Your task to perform on an android device: check the backup settings in the google photos Image 0: 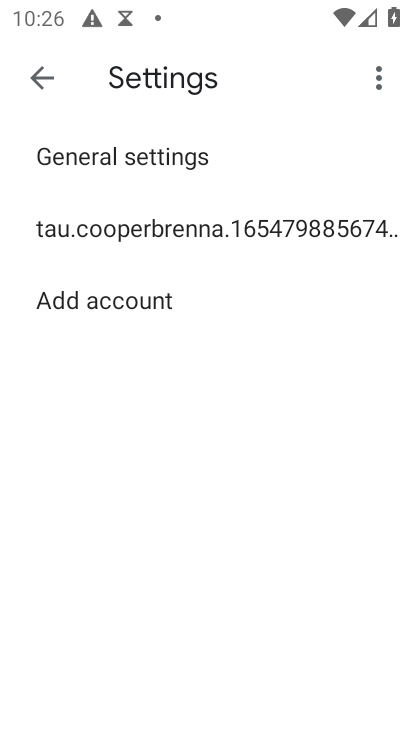
Step 0: press home button
Your task to perform on an android device: check the backup settings in the google photos Image 1: 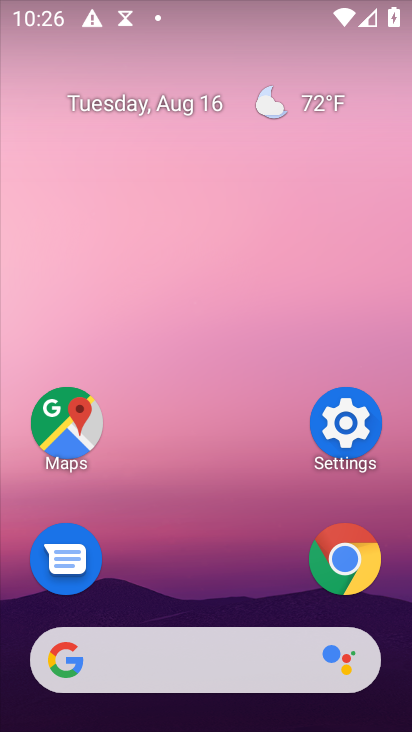
Step 1: drag from (202, 609) to (340, 77)
Your task to perform on an android device: check the backup settings in the google photos Image 2: 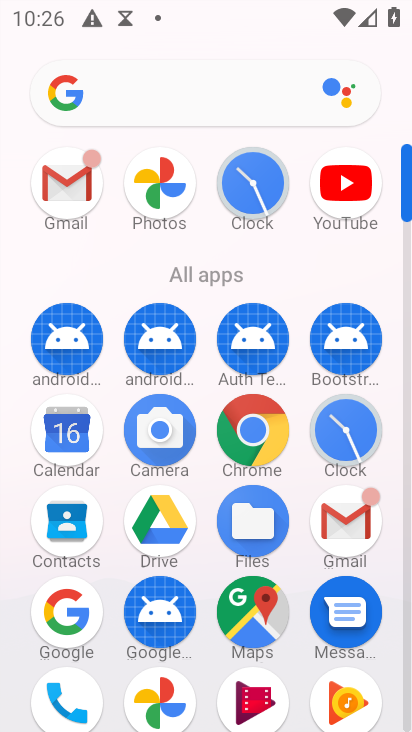
Step 2: click (160, 189)
Your task to perform on an android device: check the backup settings in the google photos Image 3: 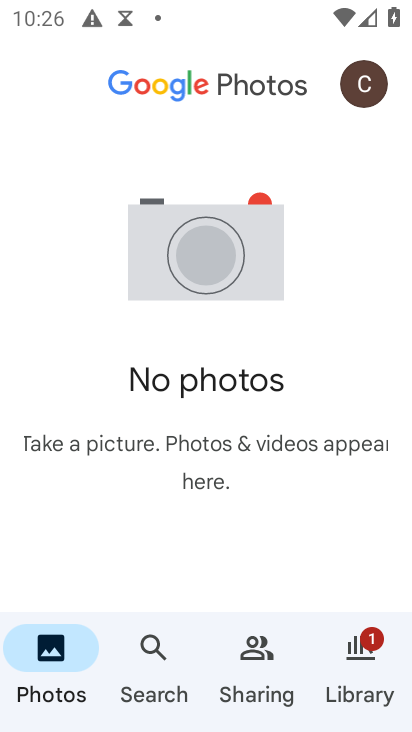
Step 3: click (359, 81)
Your task to perform on an android device: check the backup settings in the google photos Image 4: 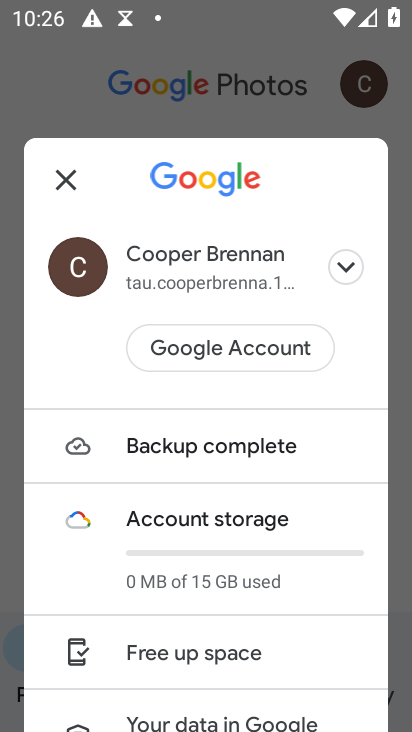
Step 4: drag from (208, 611) to (253, 116)
Your task to perform on an android device: check the backup settings in the google photos Image 5: 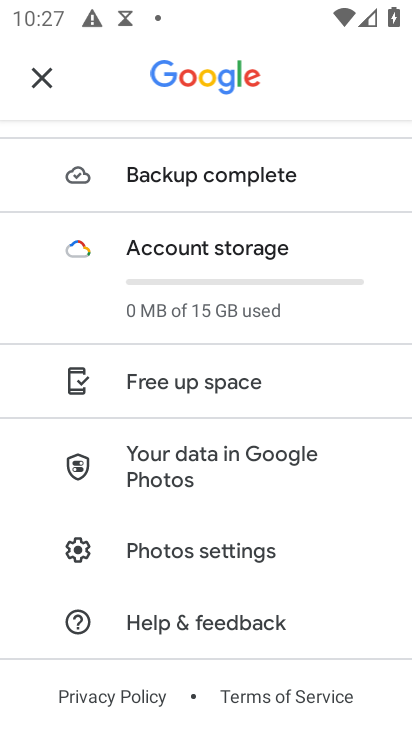
Step 5: click (205, 550)
Your task to perform on an android device: check the backup settings in the google photos Image 6: 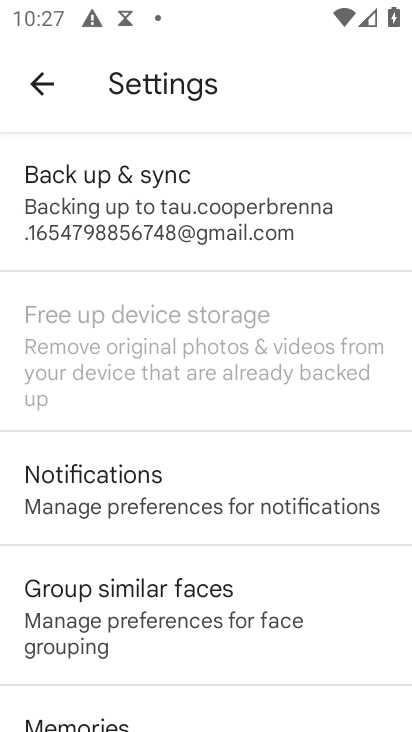
Step 6: click (180, 220)
Your task to perform on an android device: check the backup settings in the google photos Image 7: 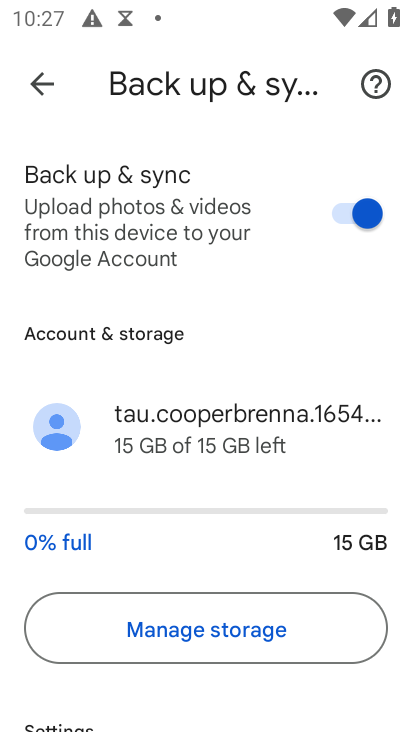
Step 7: task complete